Your task to perform on an android device: turn off location history Image 0: 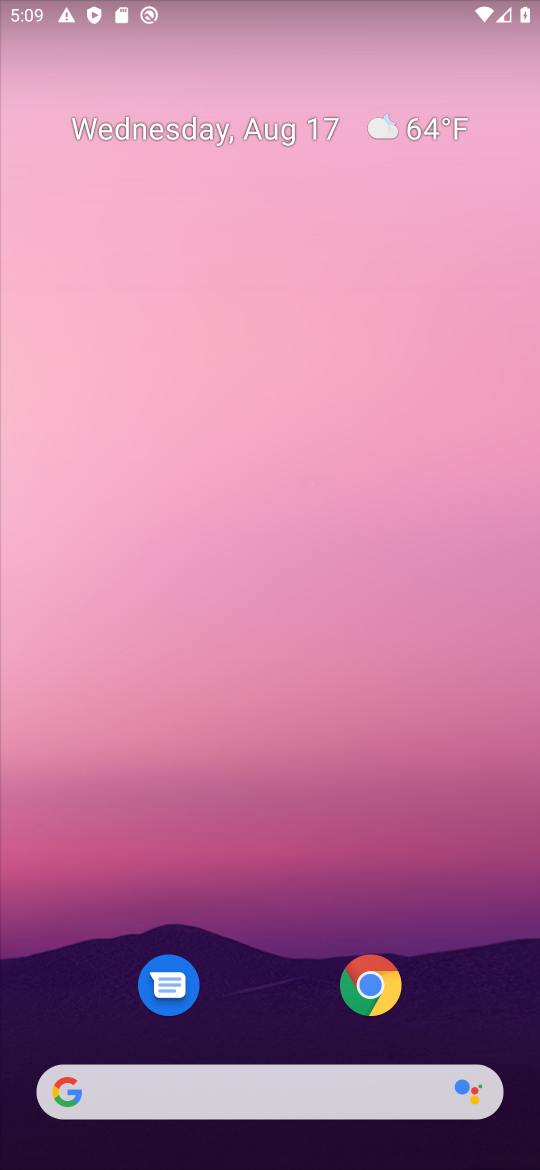
Step 0: drag from (290, 1049) to (327, 162)
Your task to perform on an android device: turn off location history Image 1: 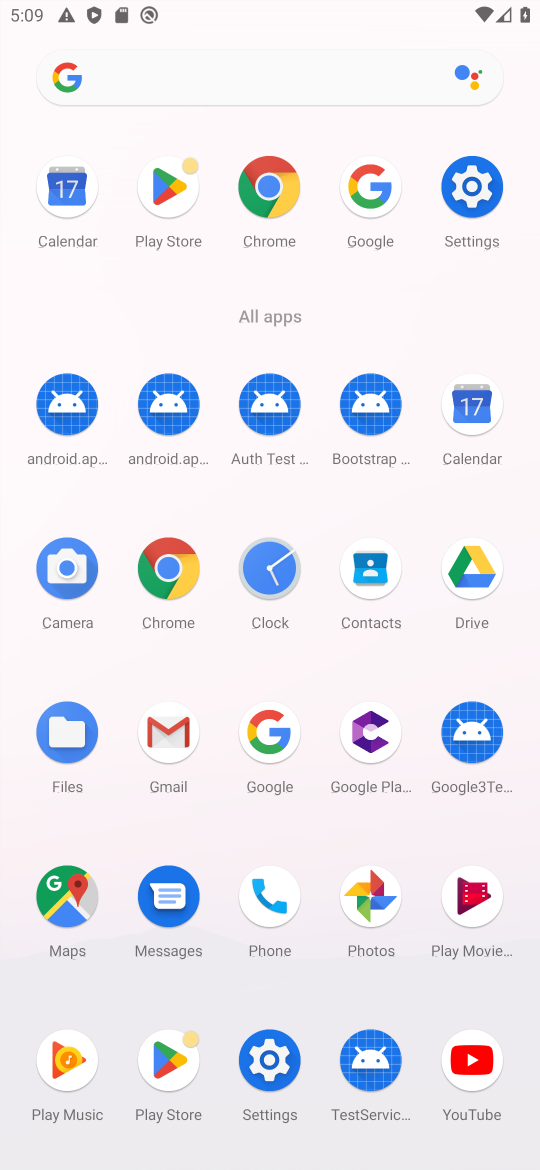
Step 1: click (471, 186)
Your task to perform on an android device: turn off location history Image 2: 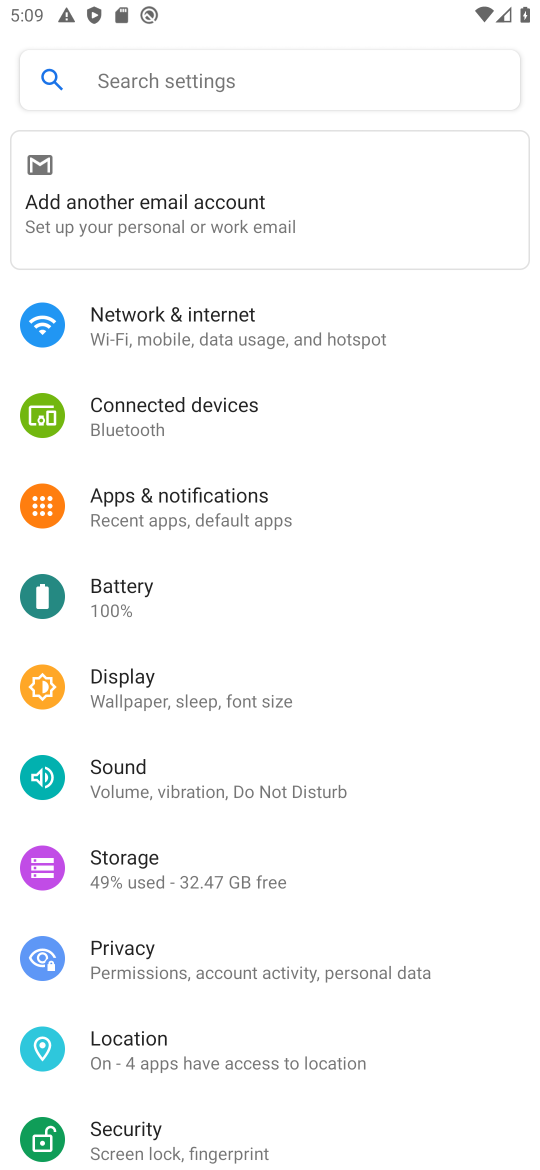
Step 2: click (123, 1044)
Your task to perform on an android device: turn off location history Image 3: 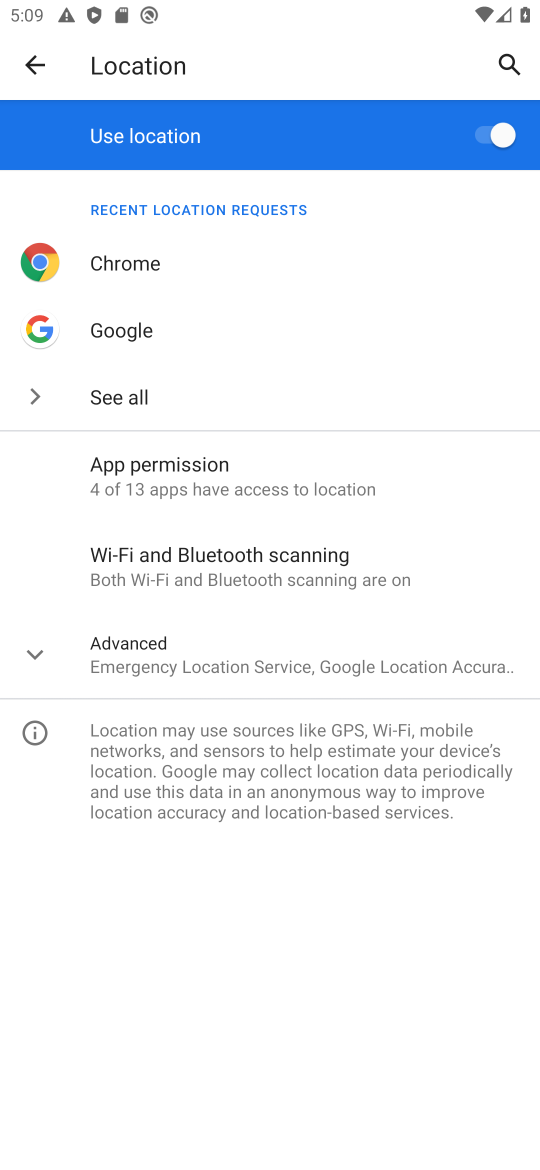
Step 3: click (203, 663)
Your task to perform on an android device: turn off location history Image 4: 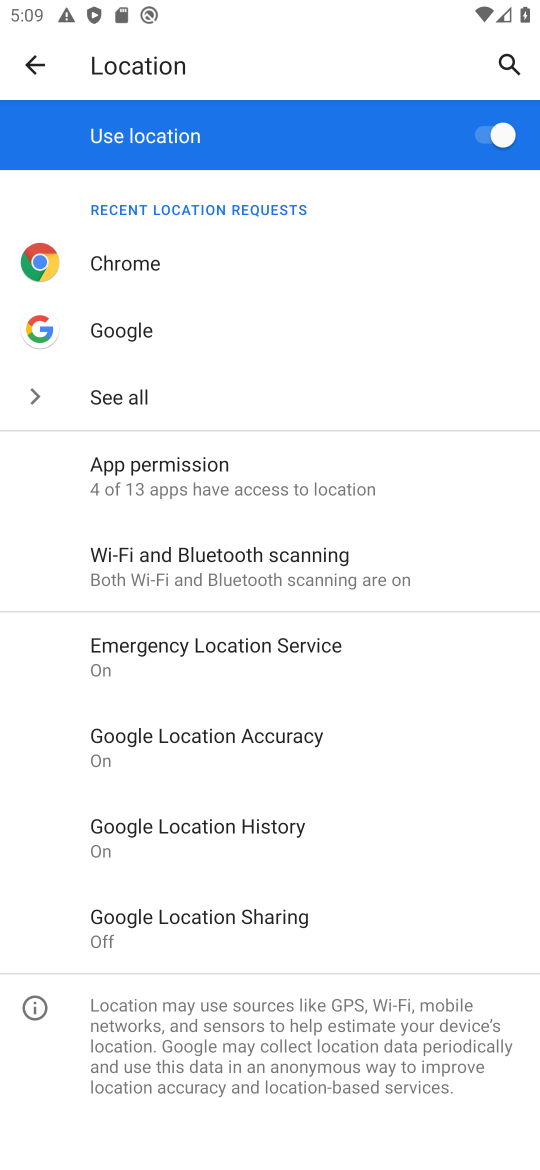
Step 4: click (241, 840)
Your task to perform on an android device: turn off location history Image 5: 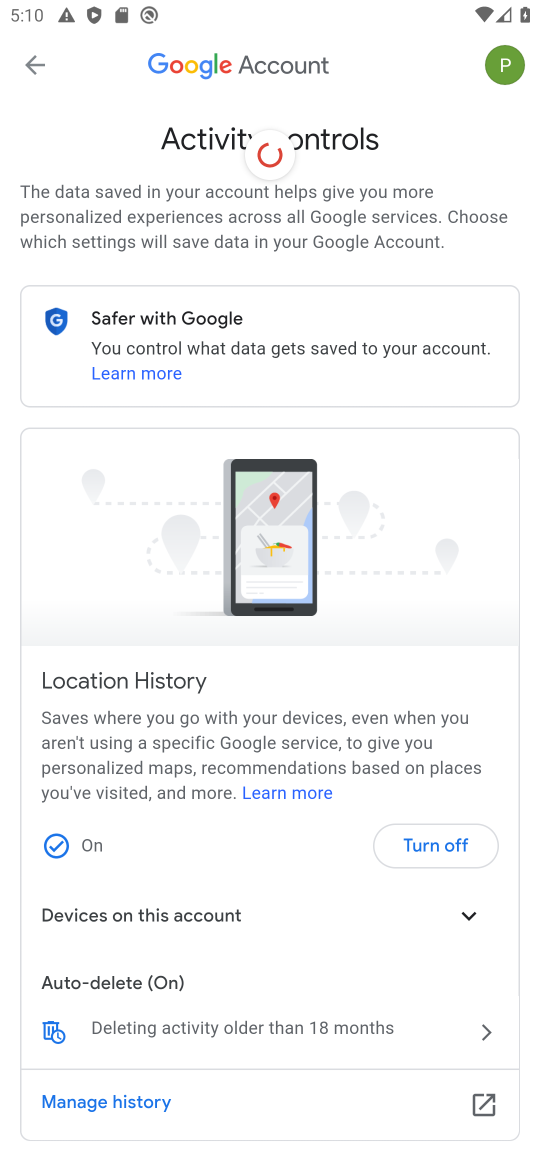
Step 5: click (433, 849)
Your task to perform on an android device: turn off location history Image 6: 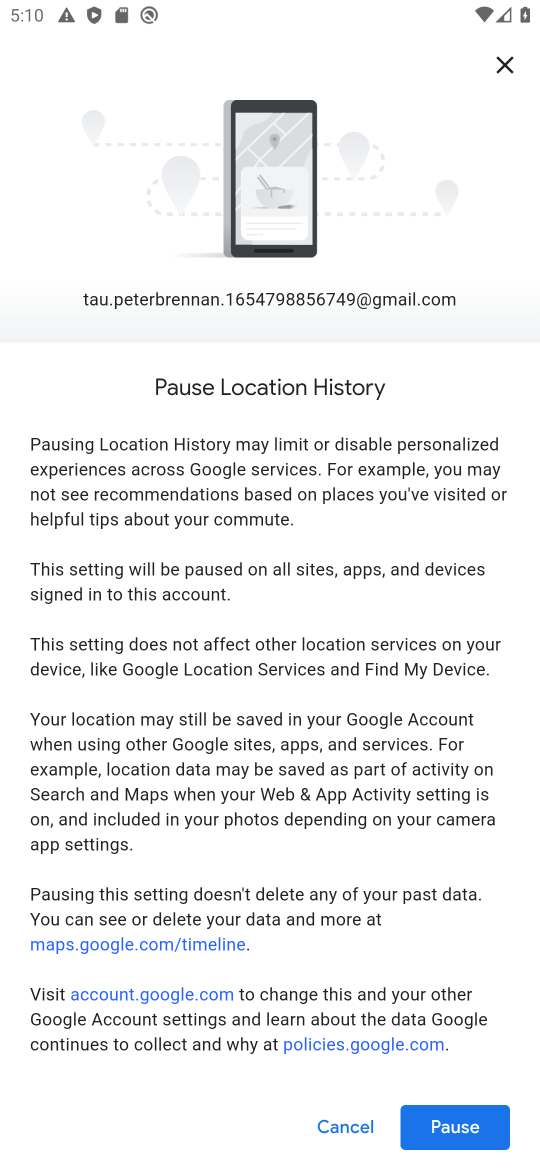
Step 6: click (442, 1129)
Your task to perform on an android device: turn off location history Image 7: 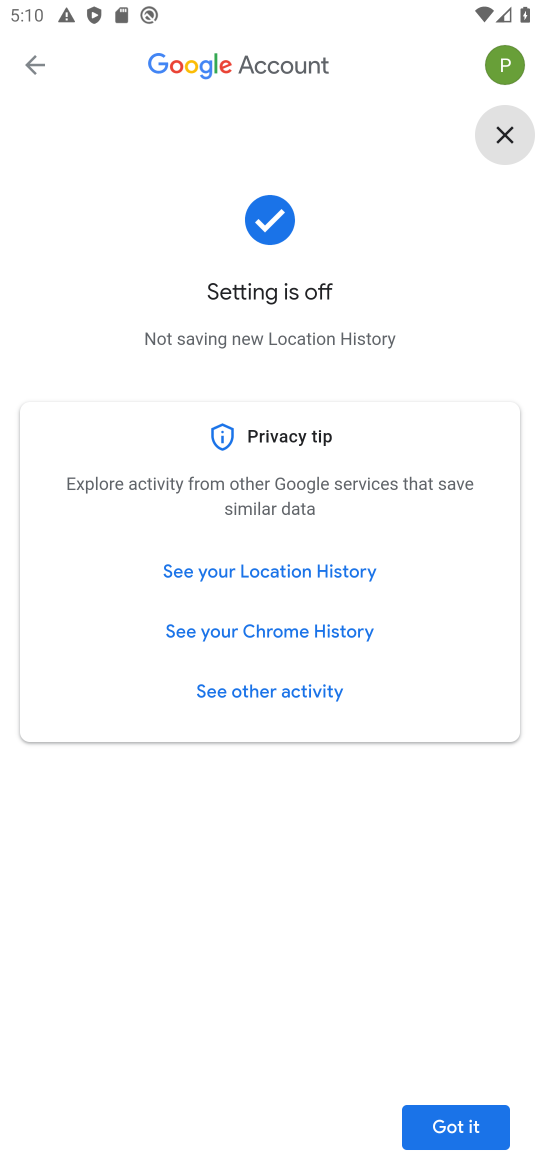
Step 7: click (442, 1129)
Your task to perform on an android device: turn off location history Image 8: 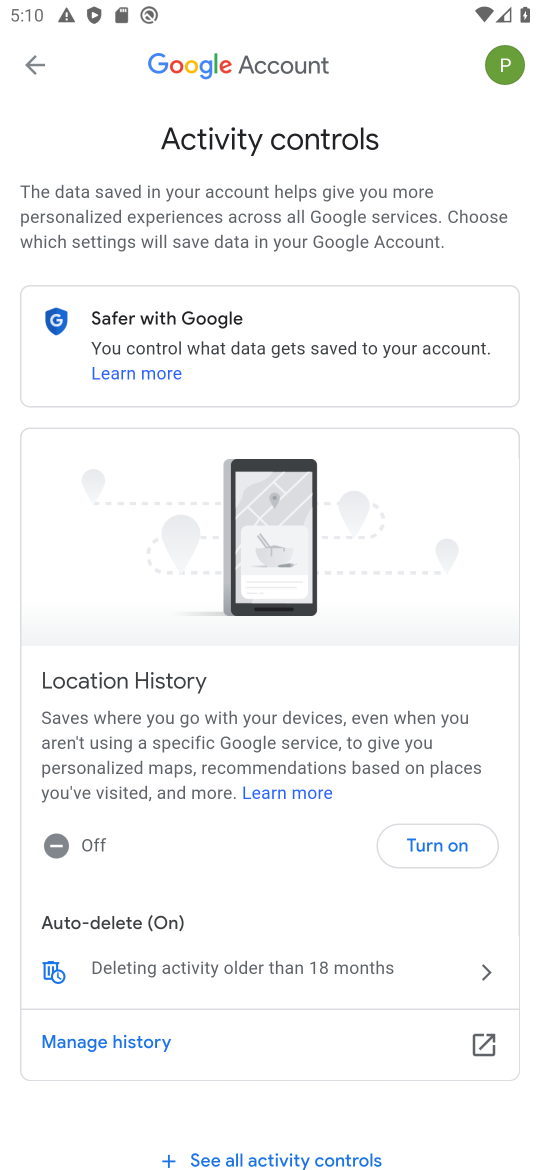
Step 8: task complete